Your task to perform on an android device: turn vacation reply on in the gmail app Image 0: 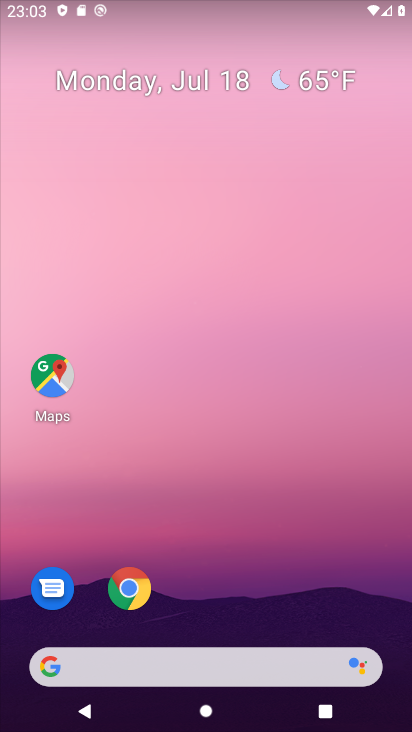
Step 0: press home button
Your task to perform on an android device: turn vacation reply on in the gmail app Image 1: 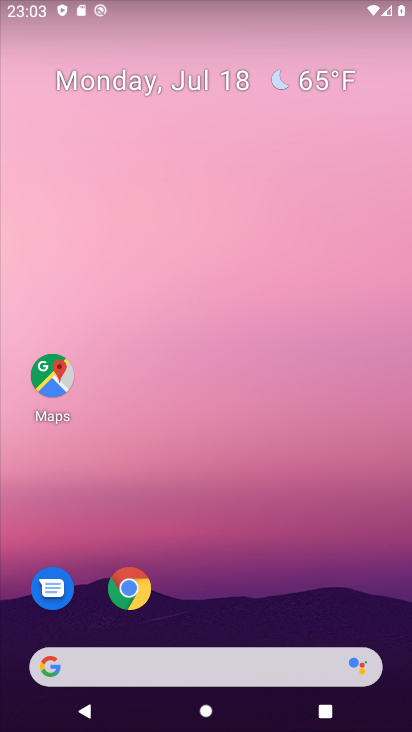
Step 1: drag from (271, 568) to (279, 113)
Your task to perform on an android device: turn vacation reply on in the gmail app Image 2: 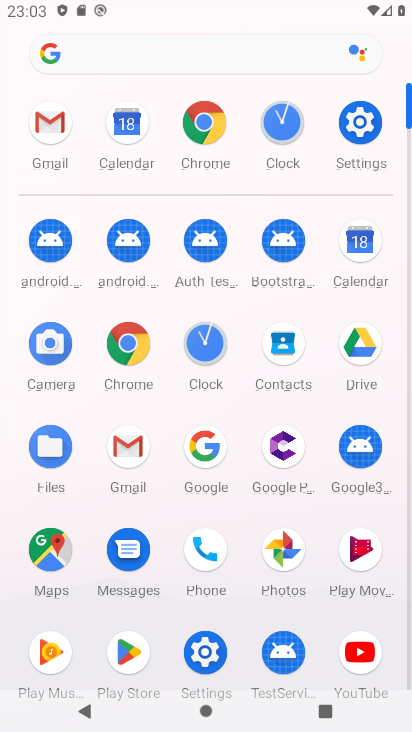
Step 2: click (46, 122)
Your task to perform on an android device: turn vacation reply on in the gmail app Image 3: 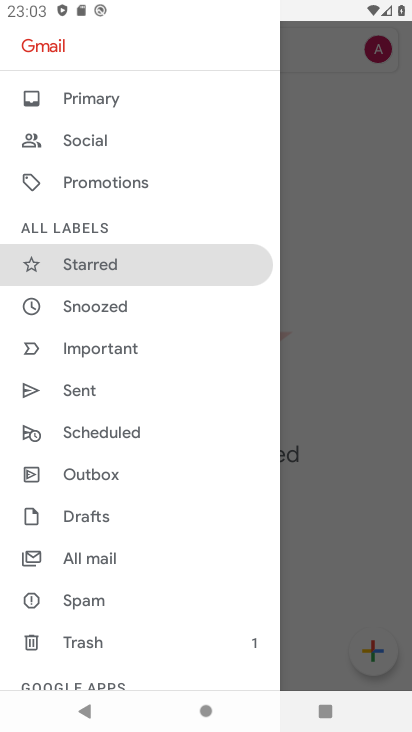
Step 3: drag from (97, 662) to (124, 207)
Your task to perform on an android device: turn vacation reply on in the gmail app Image 4: 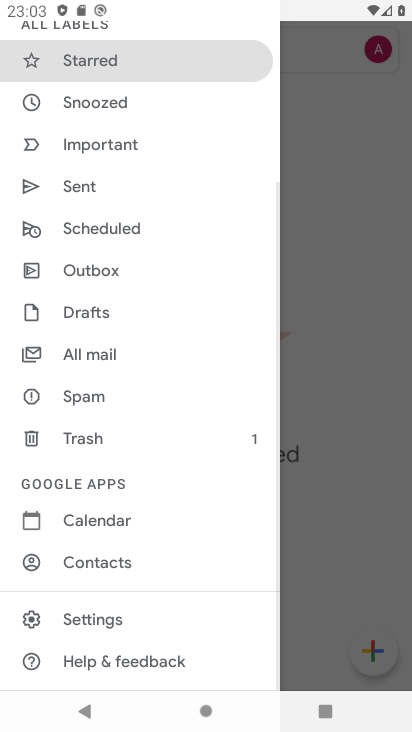
Step 4: click (111, 613)
Your task to perform on an android device: turn vacation reply on in the gmail app Image 5: 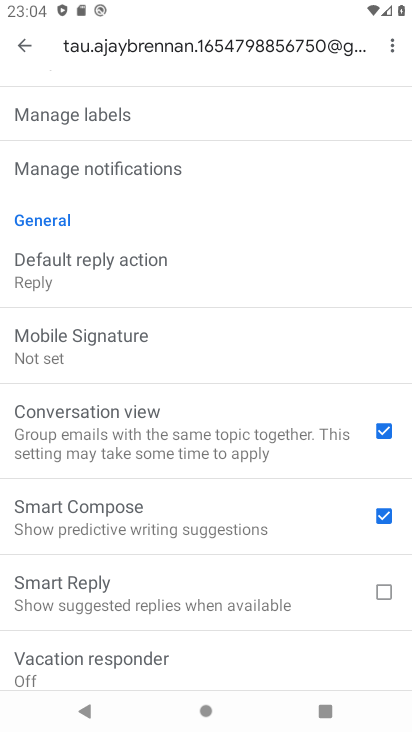
Step 5: click (166, 654)
Your task to perform on an android device: turn vacation reply on in the gmail app Image 6: 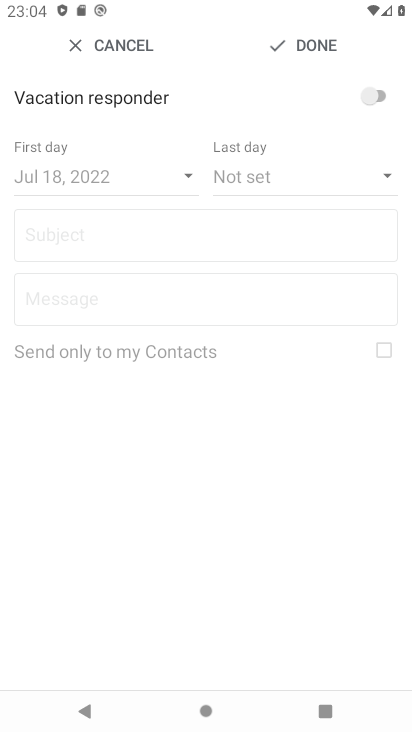
Step 6: click (360, 96)
Your task to perform on an android device: turn vacation reply on in the gmail app Image 7: 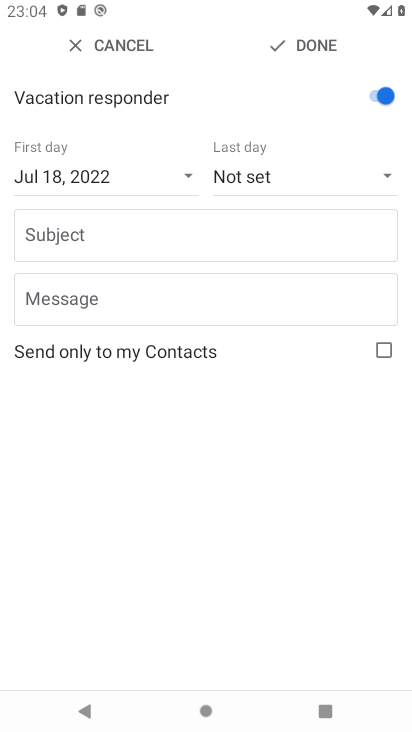
Step 7: task complete